Your task to perform on an android device: turn off location history Image 0: 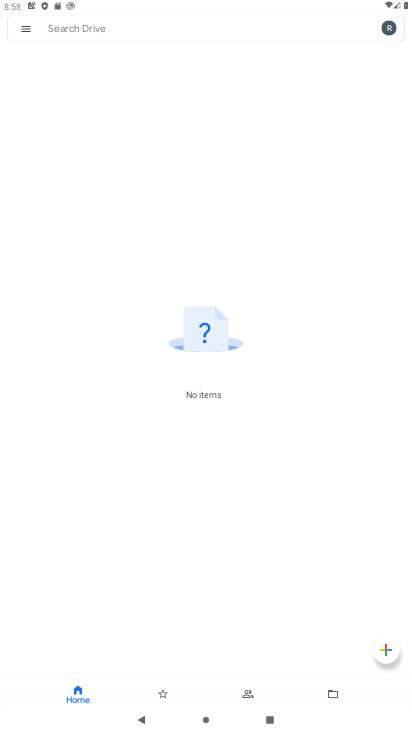
Step 0: press home button
Your task to perform on an android device: turn off location history Image 1: 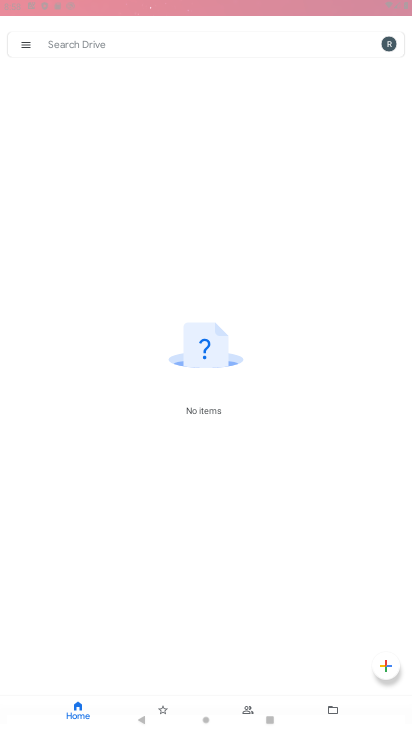
Step 1: drag from (144, 618) to (304, 111)
Your task to perform on an android device: turn off location history Image 2: 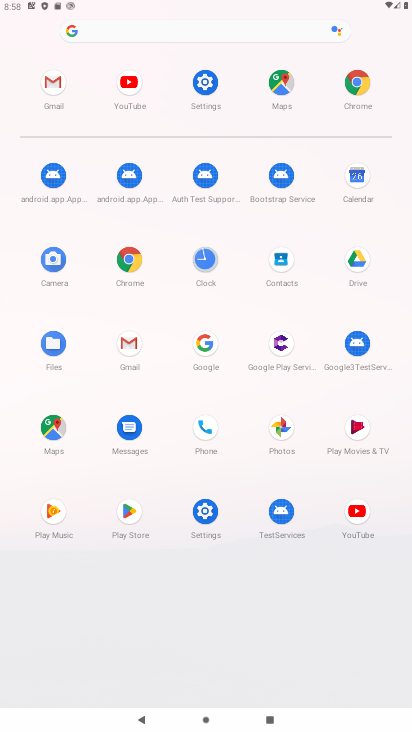
Step 2: click (211, 78)
Your task to perform on an android device: turn off location history Image 3: 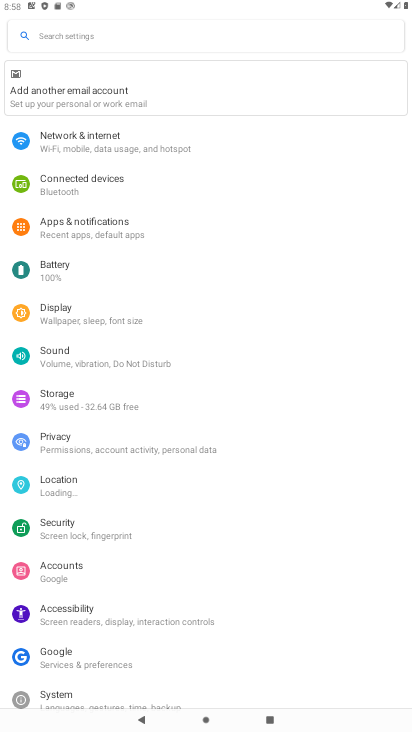
Step 3: click (75, 486)
Your task to perform on an android device: turn off location history Image 4: 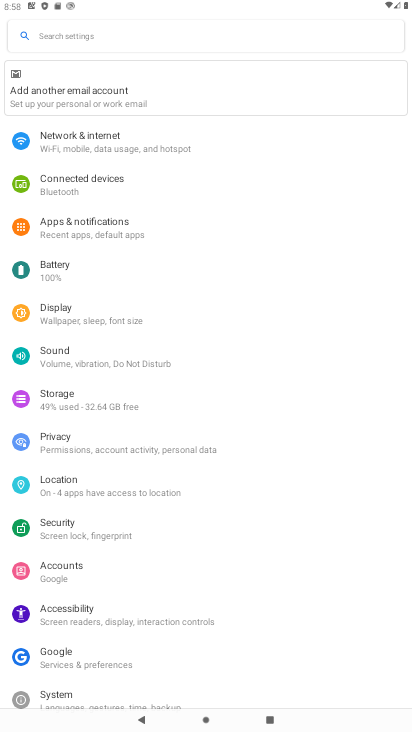
Step 4: click (101, 481)
Your task to perform on an android device: turn off location history Image 5: 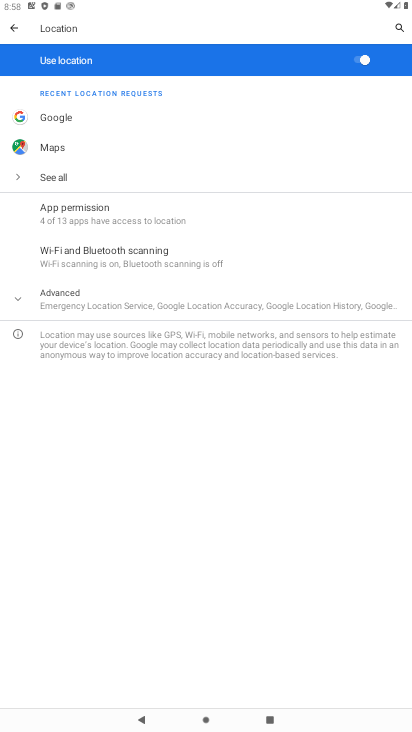
Step 5: click (102, 280)
Your task to perform on an android device: turn off location history Image 6: 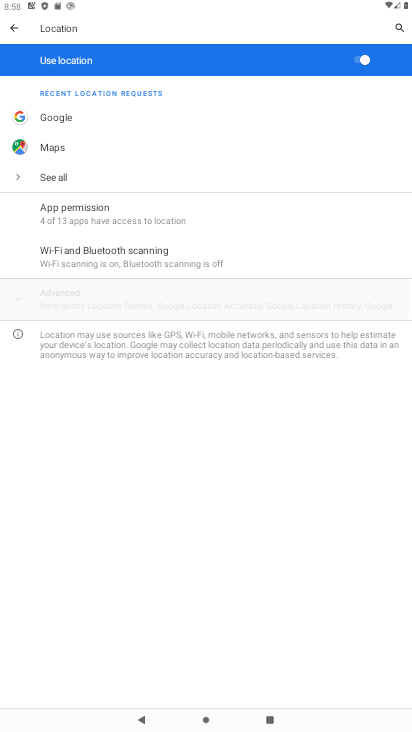
Step 6: click (72, 288)
Your task to perform on an android device: turn off location history Image 7: 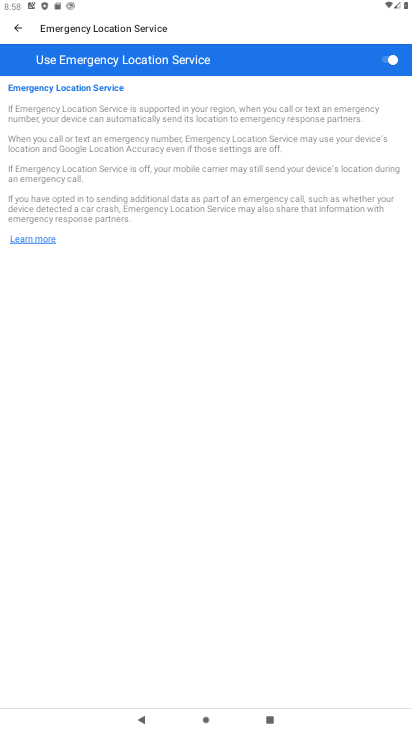
Step 7: click (16, 32)
Your task to perform on an android device: turn off location history Image 8: 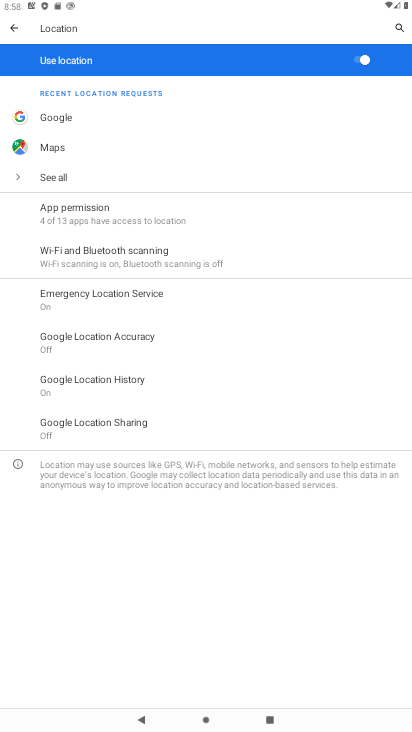
Step 8: click (94, 371)
Your task to perform on an android device: turn off location history Image 9: 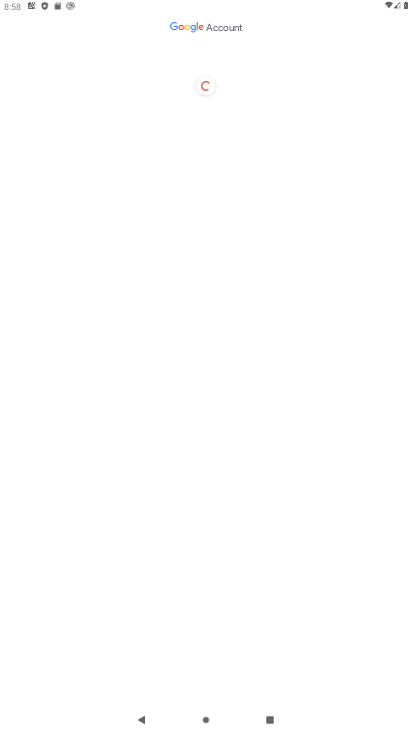
Step 9: drag from (169, 656) to (271, 64)
Your task to perform on an android device: turn off location history Image 10: 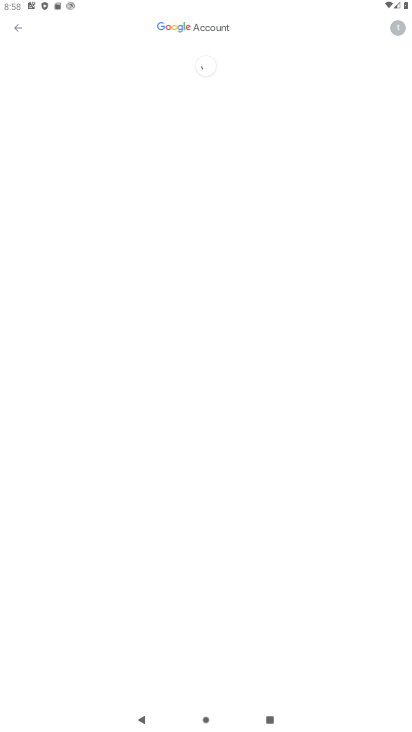
Step 10: drag from (197, 574) to (238, 384)
Your task to perform on an android device: turn off location history Image 11: 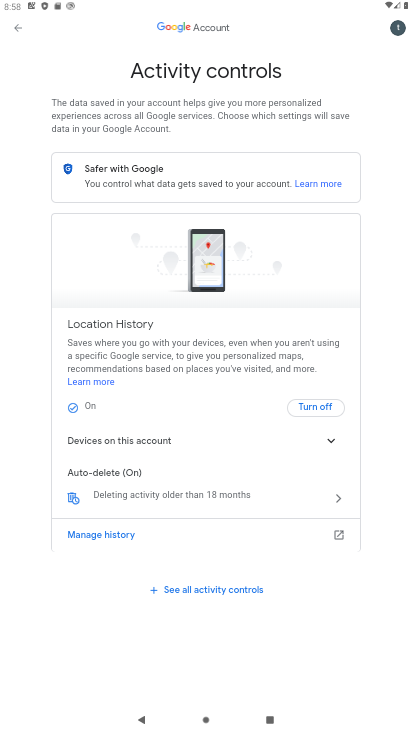
Step 11: click (311, 406)
Your task to perform on an android device: turn off location history Image 12: 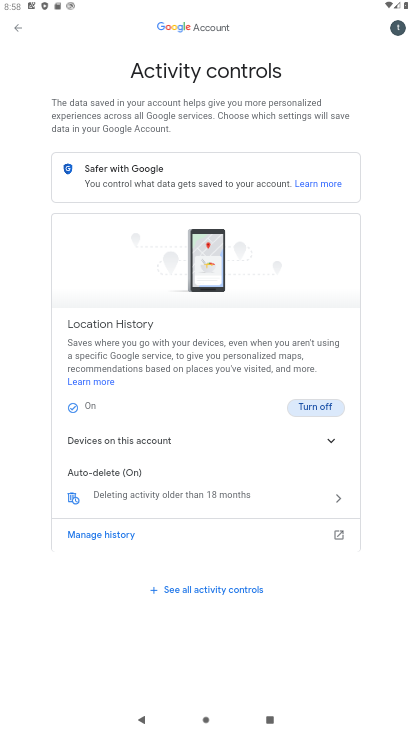
Step 12: drag from (226, 592) to (330, 84)
Your task to perform on an android device: turn off location history Image 13: 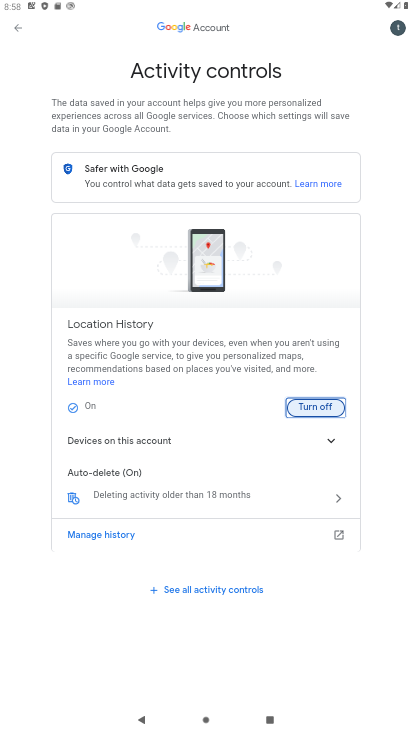
Step 13: drag from (241, 506) to (338, 100)
Your task to perform on an android device: turn off location history Image 14: 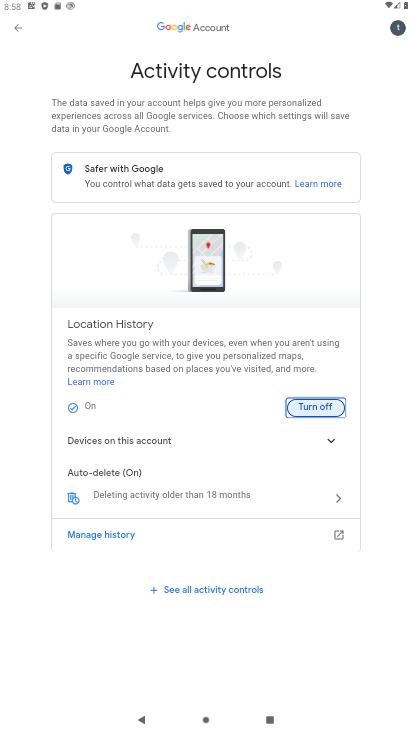
Step 14: click (317, 411)
Your task to perform on an android device: turn off location history Image 15: 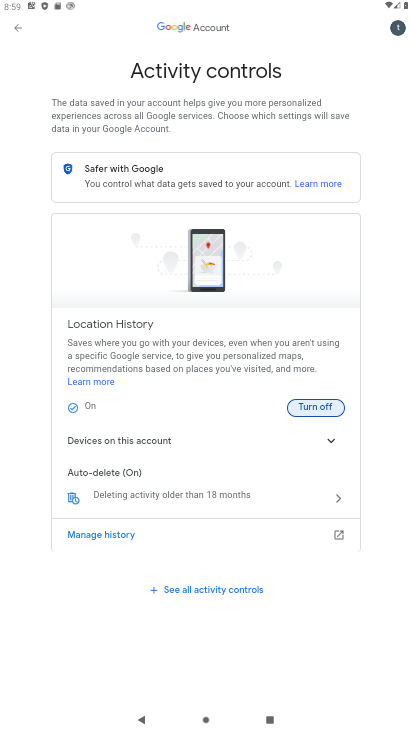
Step 15: click (310, 409)
Your task to perform on an android device: turn off location history Image 16: 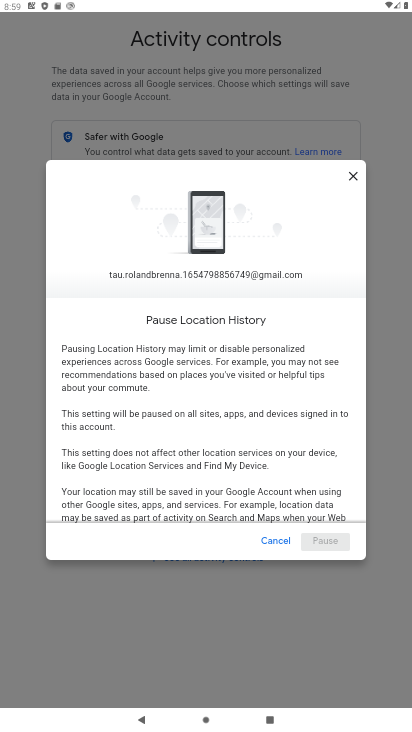
Step 16: drag from (218, 443) to (264, 66)
Your task to perform on an android device: turn off location history Image 17: 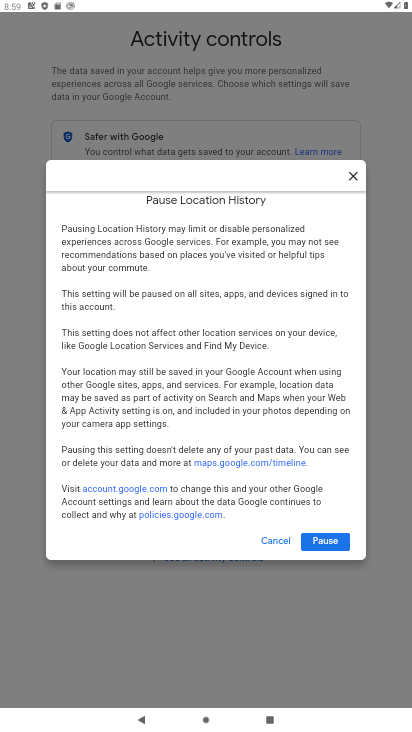
Step 17: click (314, 538)
Your task to perform on an android device: turn off location history Image 18: 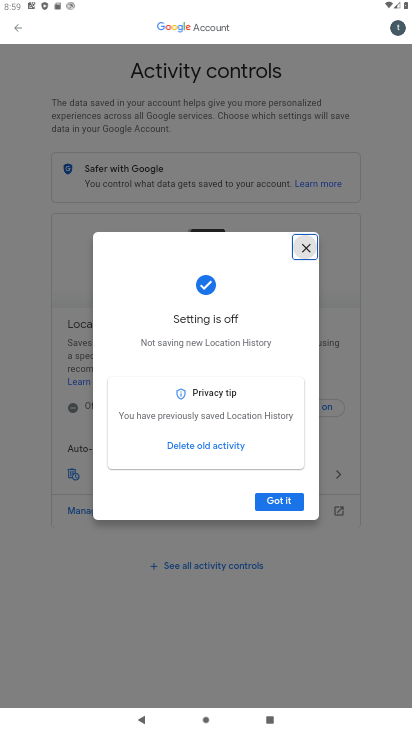
Step 18: click (275, 502)
Your task to perform on an android device: turn off location history Image 19: 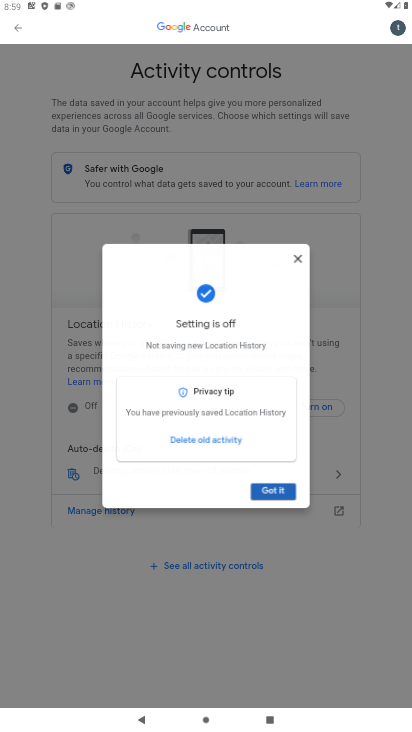
Step 19: task complete